Your task to perform on an android device: See recent photos Image 0: 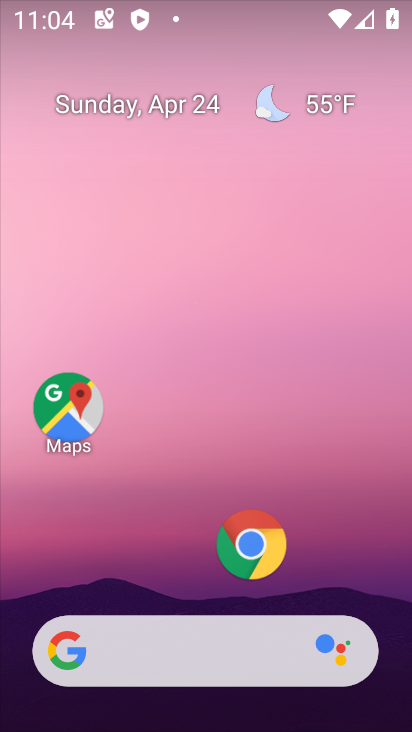
Step 0: drag from (201, 530) to (249, 193)
Your task to perform on an android device: See recent photos Image 1: 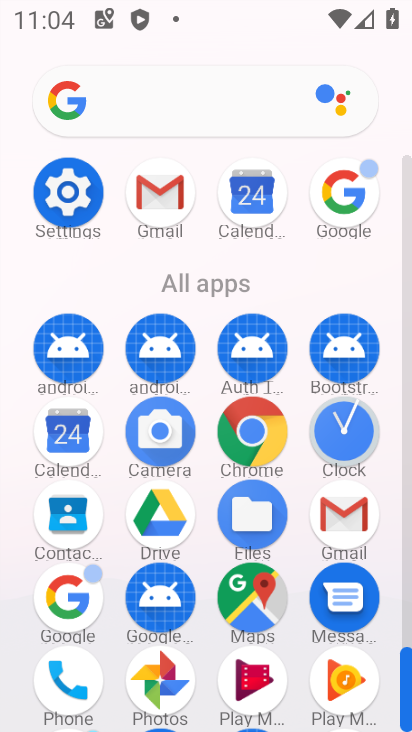
Step 1: click (155, 669)
Your task to perform on an android device: See recent photos Image 2: 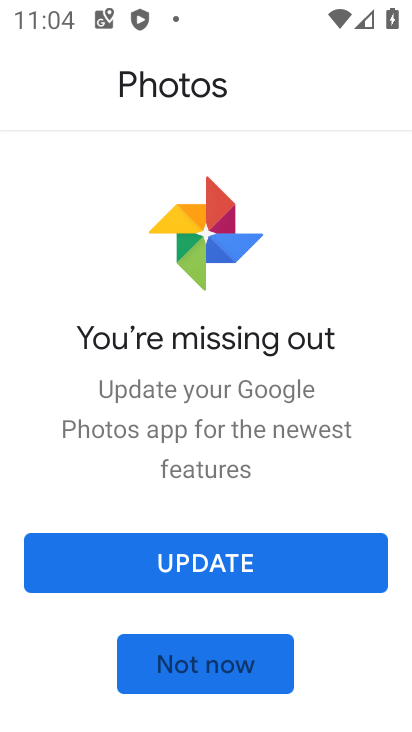
Step 2: click (199, 647)
Your task to perform on an android device: See recent photos Image 3: 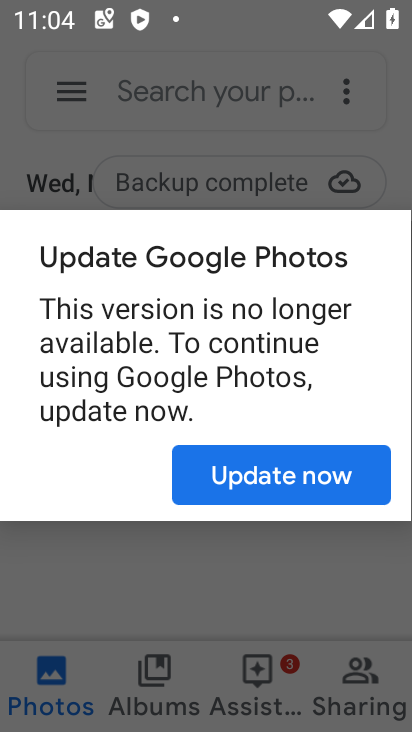
Step 3: click (325, 481)
Your task to perform on an android device: See recent photos Image 4: 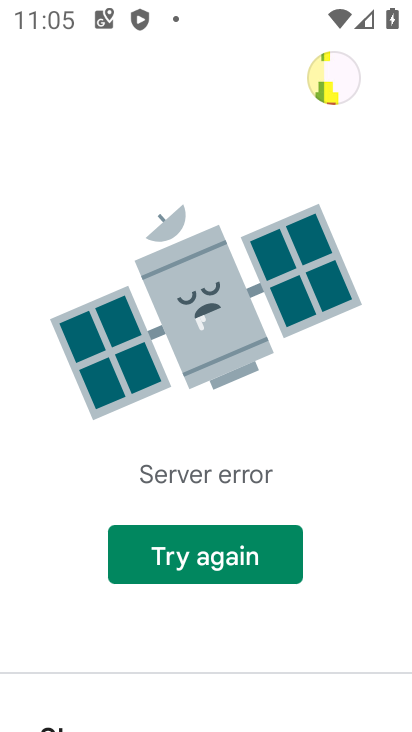
Step 4: click (207, 540)
Your task to perform on an android device: See recent photos Image 5: 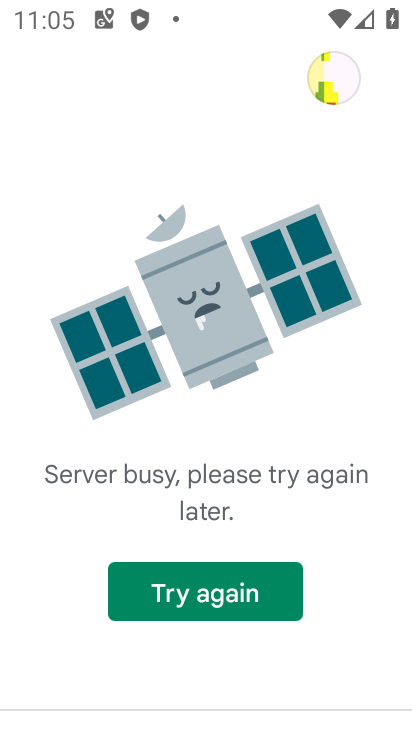
Step 5: click (214, 614)
Your task to perform on an android device: See recent photos Image 6: 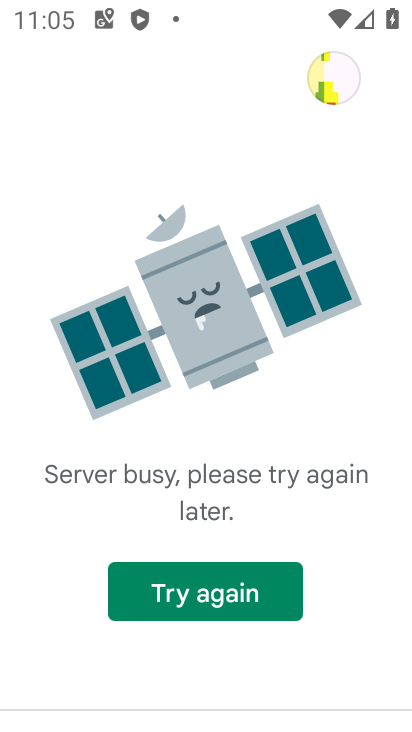
Step 6: click (214, 614)
Your task to perform on an android device: See recent photos Image 7: 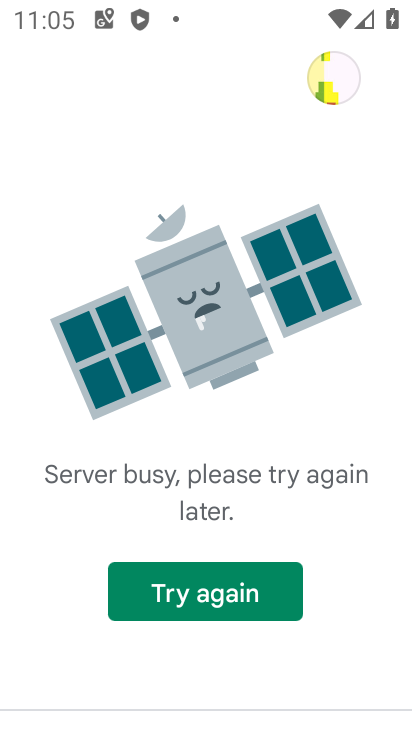
Step 7: press back button
Your task to perform on an android device: See recent photos Image 8: 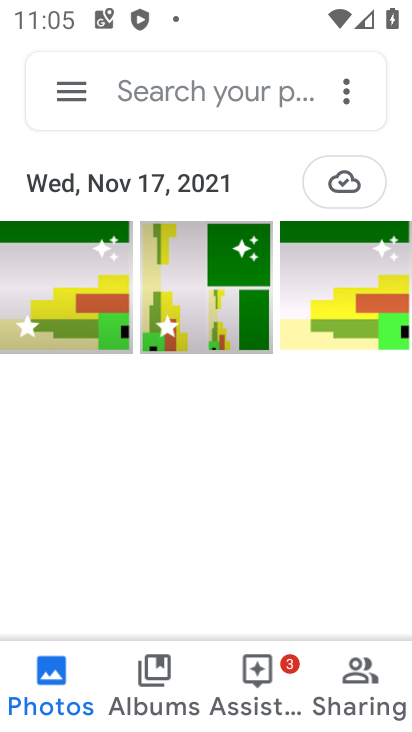
Step 8: click (106, 350)
Your task to perform on an android device: See recent photos Image 9: 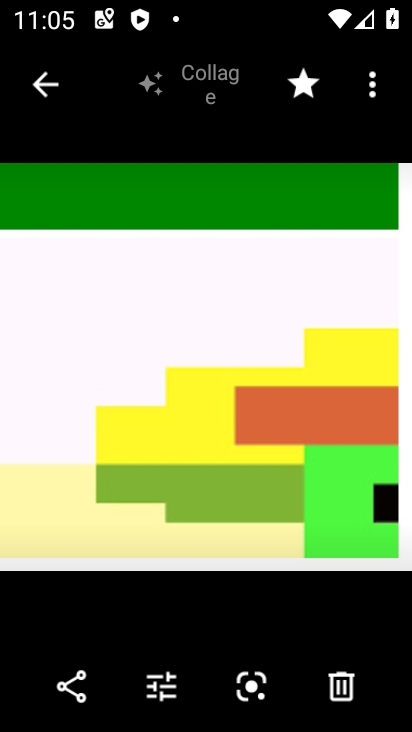
Step 9: task complete